Your task to perform on an android device: Go to privacy settings Image 0: 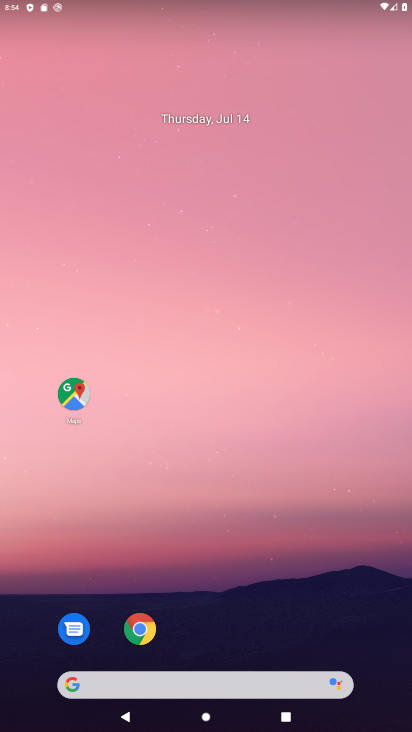
Step 0: drag from (249, 608) to (252, 236)
Your task to perform on an android device: Go to privacy settings Image 1: 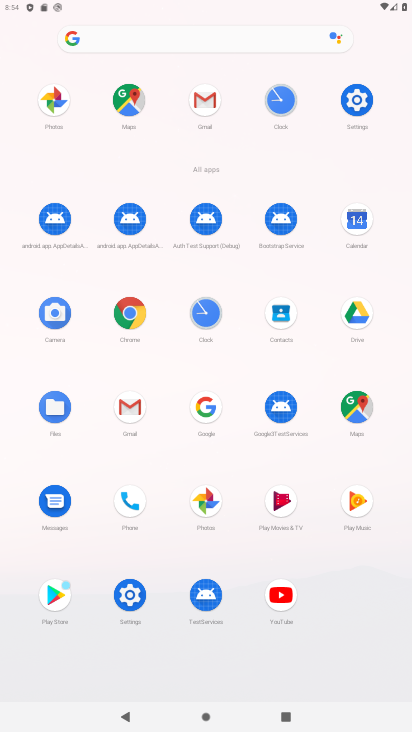
Step 1: click (367, 94)
Your task to perform on an android device: Go to privacy settings Image 2: 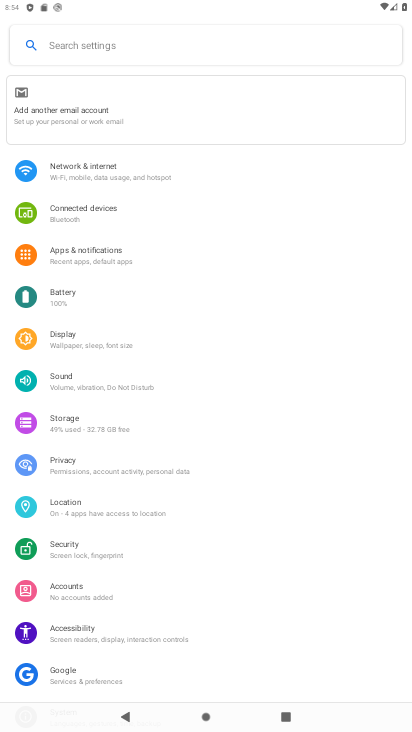
Step 2: click (83, 466)
Your task to perform on an android device: Go to privacy settings Image 3: 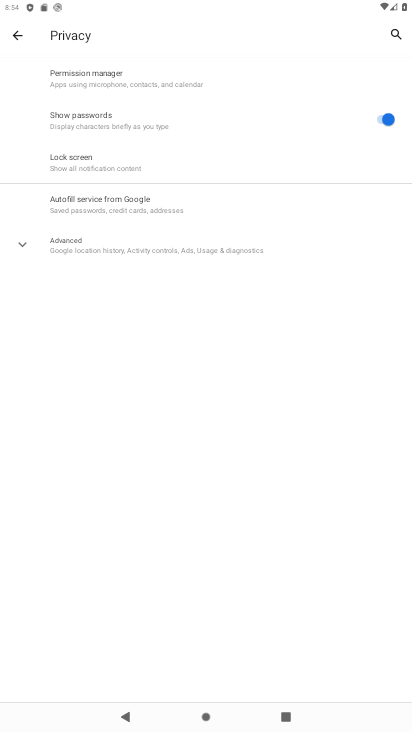
Step 3: task complete